Your task to perform on an android device: Open battery settings Image 0: 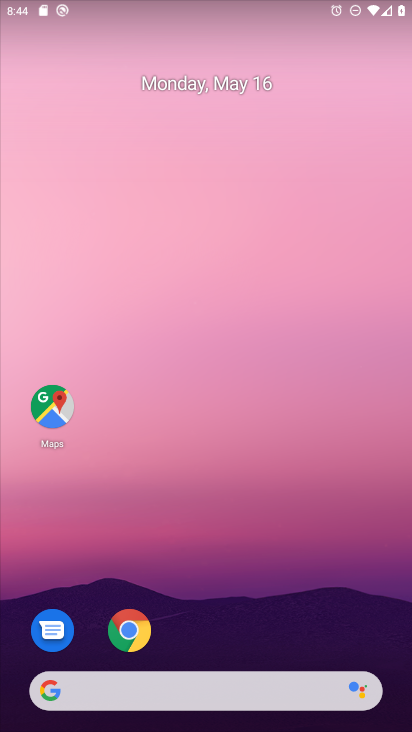
Step 0: drag from (298, 565) to (293, 60)
Your task to perform on an android device: Open battery settings Image 1: 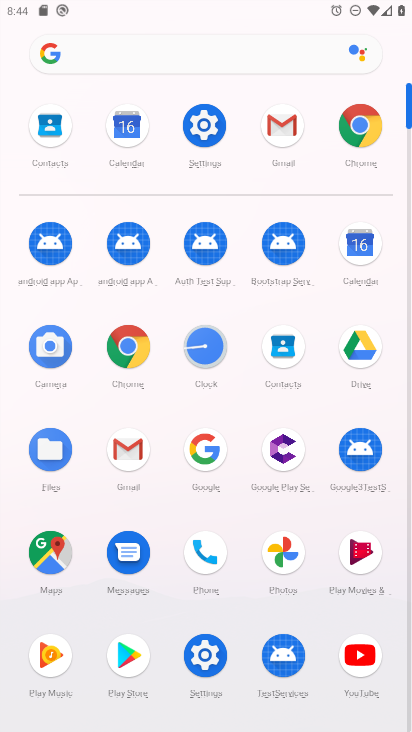
Step 1: click (223, 122)
Your task to perform on an android device: Open battery settings Image 2: 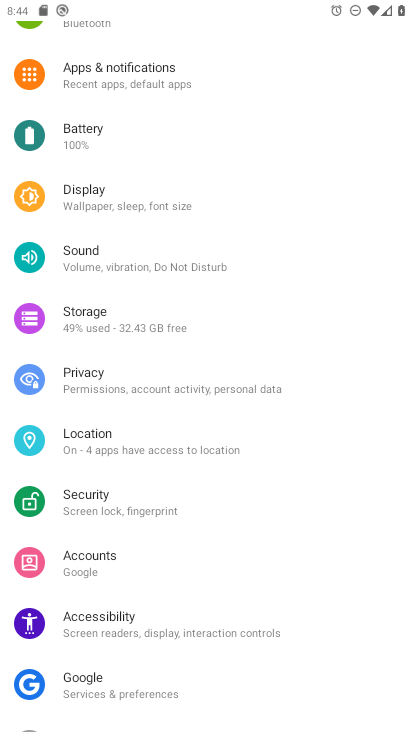
Step 2: click (201, 126)
Your task to perform on an android device: Open battery settings Image 3: 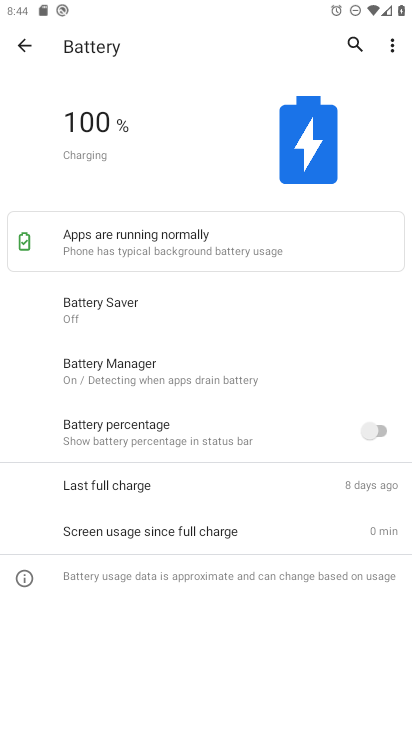
Step 3: task complete